Your task to perform on an android device: Open Yahoo.com Image 0: 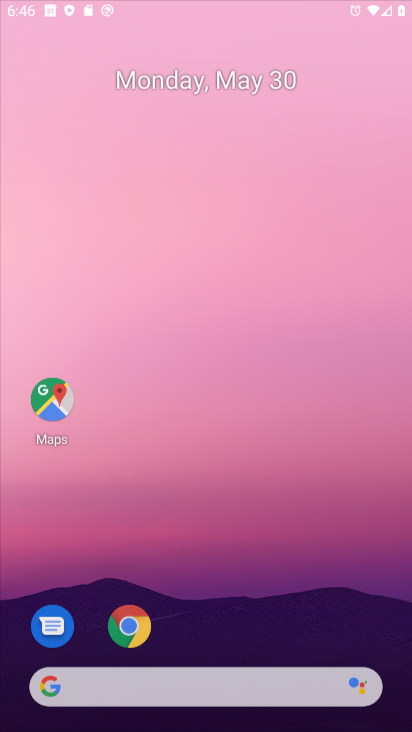
Step 0: drag from (338, 611) to (183, 62)
Your task to perform on an android device: Open Yahoo.com Image 1: 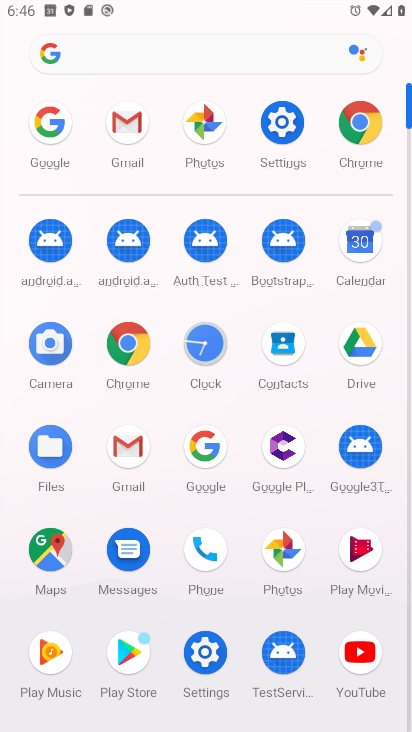
Step 1: click (204, 452)
Your task to perform on an android device: Open Yahoo.com Image 2: 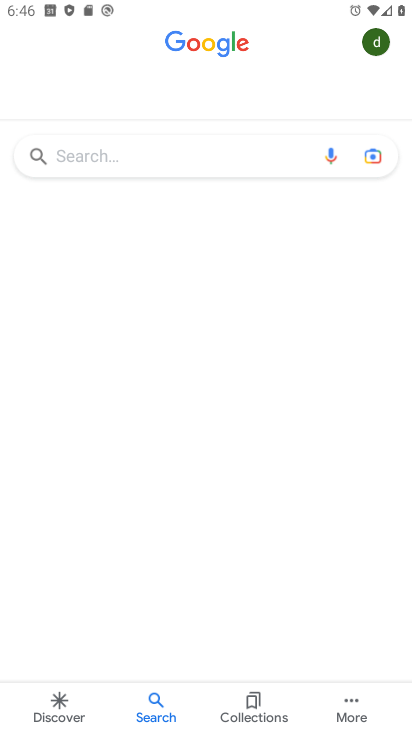
Step 2: click (127, 156)
Your task to perform on an android device: Open Yahoo.com Image 3: 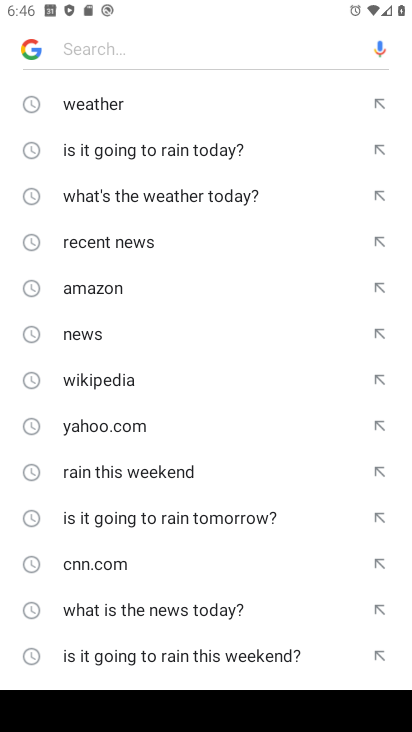
Step 3: click (123, 423)
Your task to perform on an android device: Open Yahoo.com Image 4: 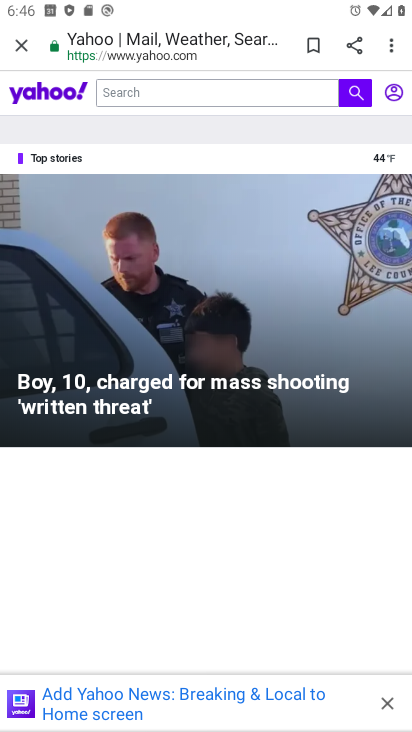
Step 4: task complete